Your task to perform on an android device: Open internet settings Image 0: 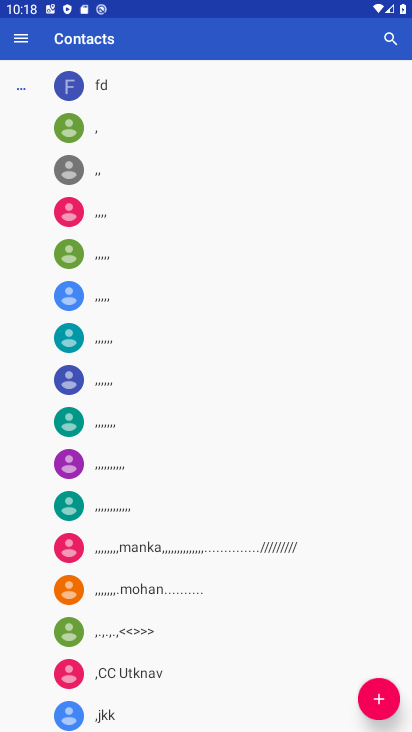
Step 0: press home button
Your task to perform on an android device: Open internet settings Image 1: 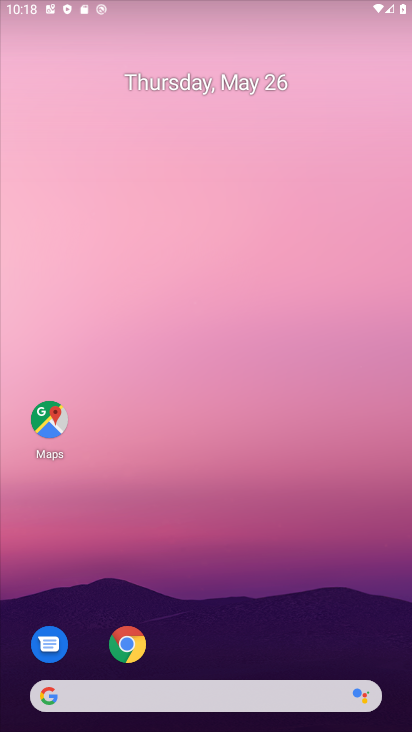
Step 1: drag from (388, 669) to (295, 79)
Your task to perform on an android device: Open internet settings Image 2: 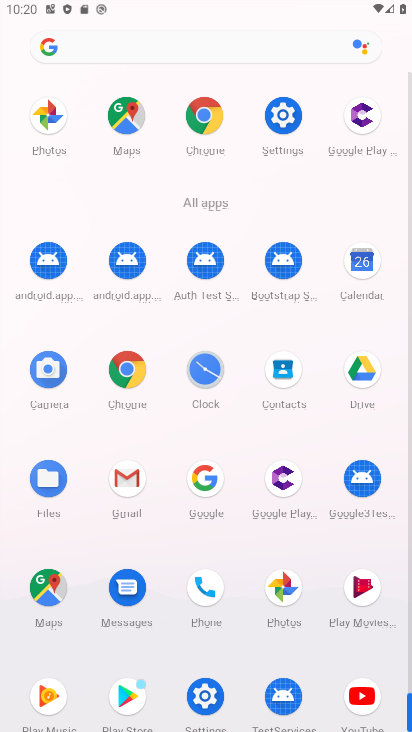
Step 2: click (211, 696)
Your task to perform on an android device: Open internet settings Image 3: 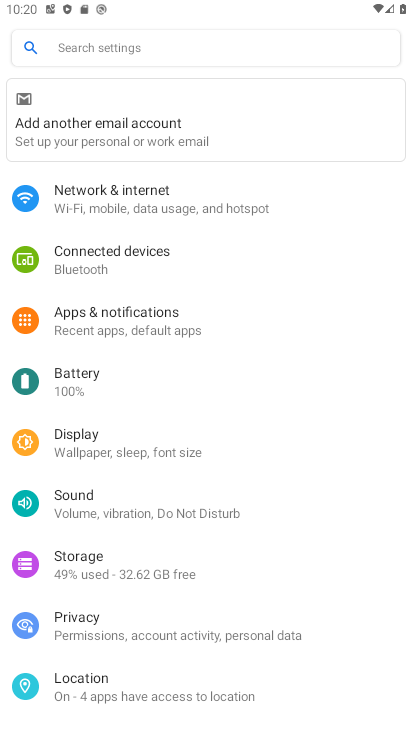
Step 3: click (151, 186)
Your task to perform on an android device: Open internet settings Image 4: 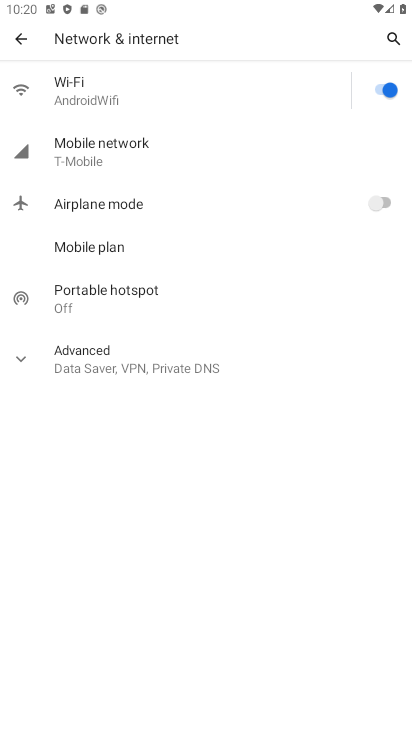
Step 4: task complete